Your task to perform on an android device: toggle data saver in the chrome app Image 0: 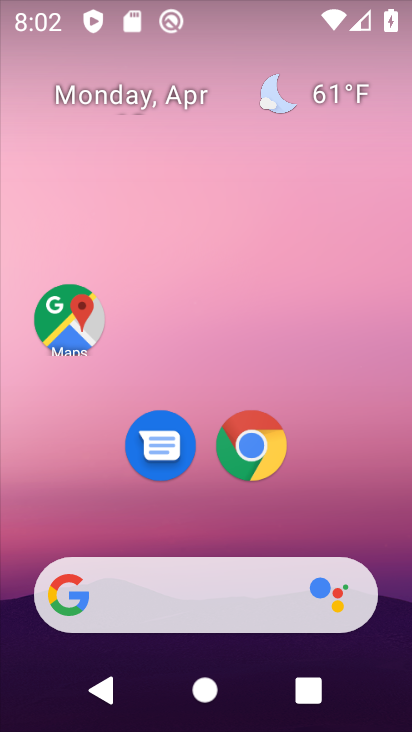
Step 0: click (267, 451)
Your task to perform on an android device: toggle data saver in the chrome app Image 1: 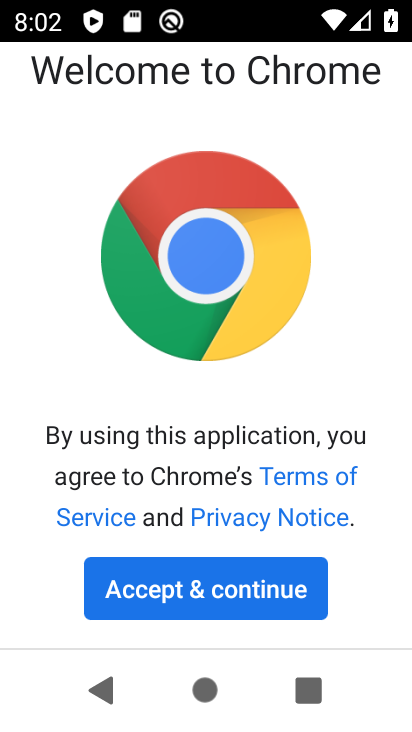
Step 1: click (282, 599)
Your task to perform on an android device: toggle data saver in the chrome app Image 2: 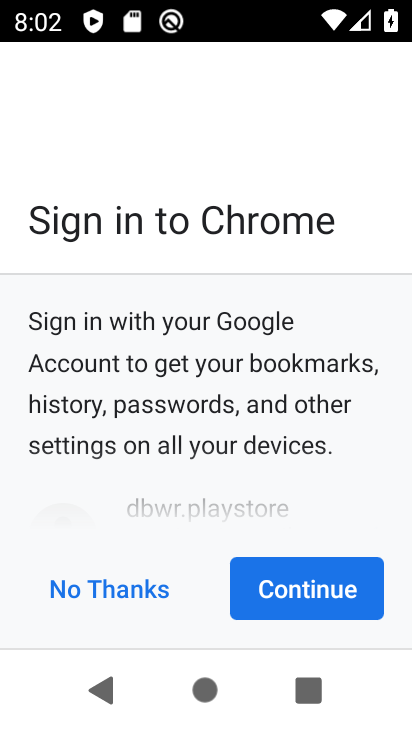
Step 2: click (291, 599)
Your task to perform on an android device: toggle data saver in the chrome app Image 3: 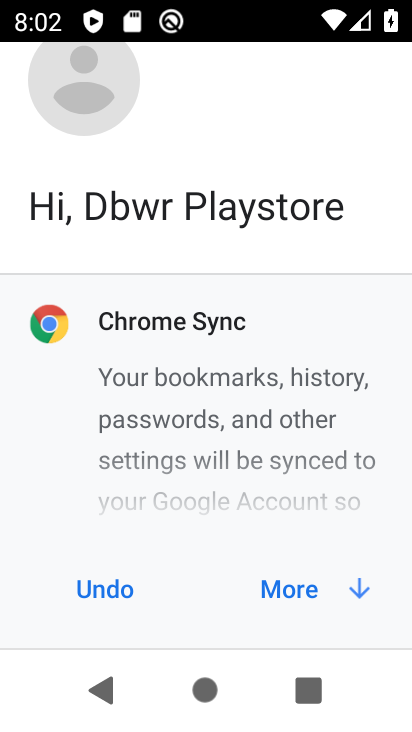
Step 3: click (292, 601)
Your task to perform on an android device: toggle data saver in the chrome app Image 4: 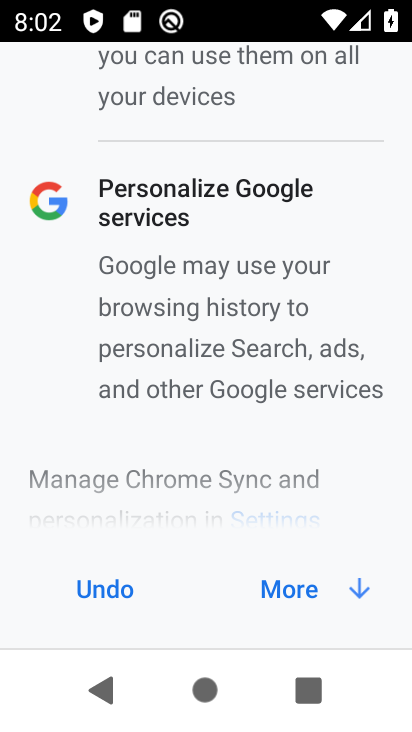
Step 4: click (291, 588)
Your task to perform on an android device: toggle data saver in the chrome app Image 5: 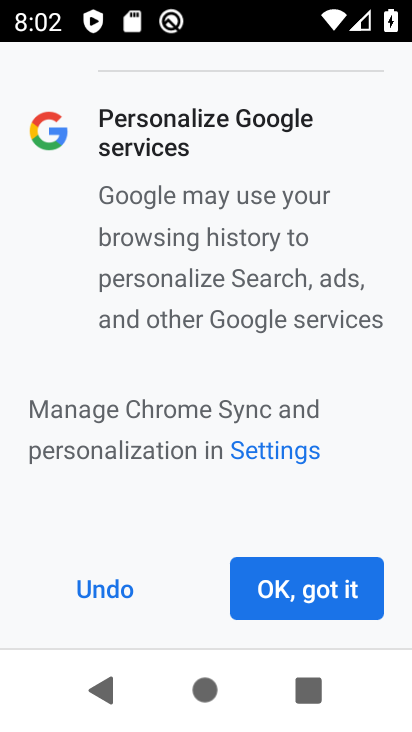
Step 5: click (292, 592)
Your task to perform on an android device: toggle data saver in the chrome app Image 6: 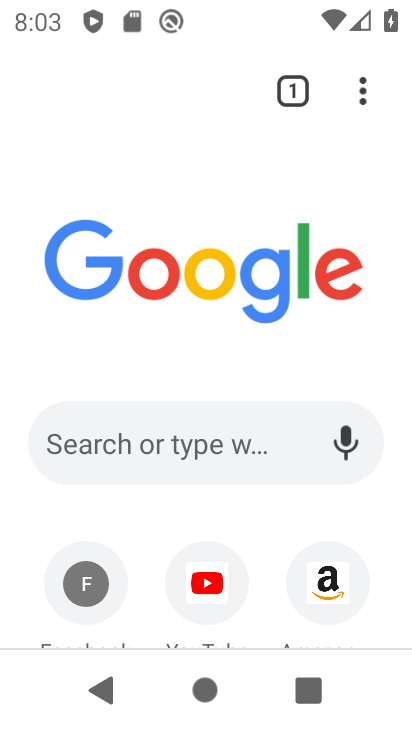
Step 6: click (364, 100)
Your task to perform on an android device: toggle data saver in the chrome app Image 7: 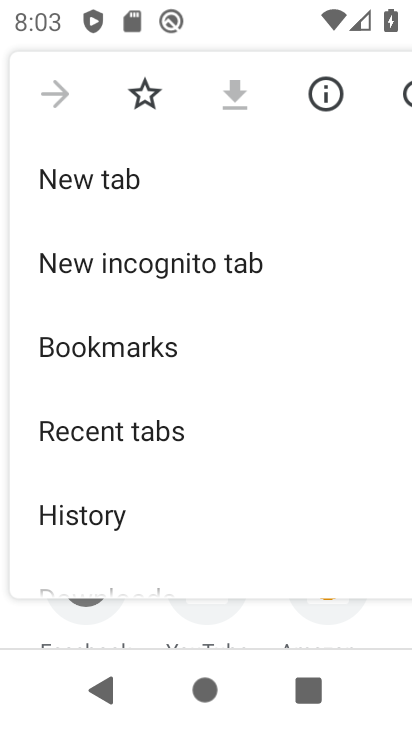
Step 7: drag from (168, 506) to (233, 205)
Your task to perform on an android device: toggle data saver in the chrome app Image 8: 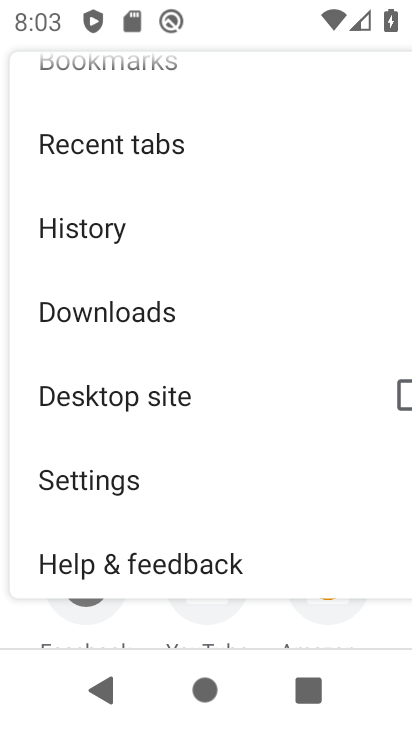
Step 8: click (111, 481)
Your task to perform on an android device: toggle data saver in the chrome app Image 9: 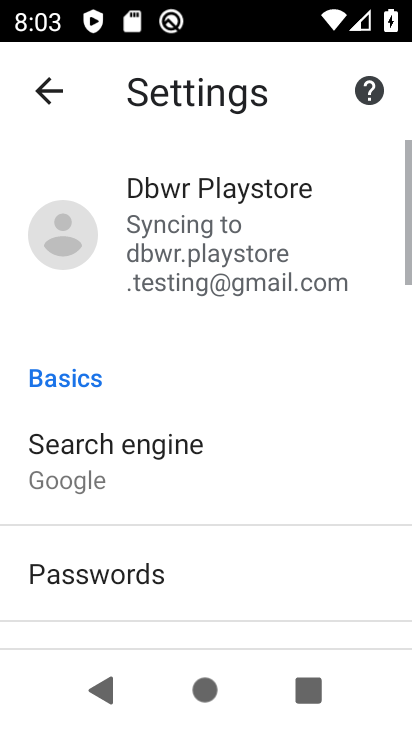
Step 9: drag from (313, 491) to (348, 165)
Your task to perform on an android device: toggle data saver in the chrome app Image 10: 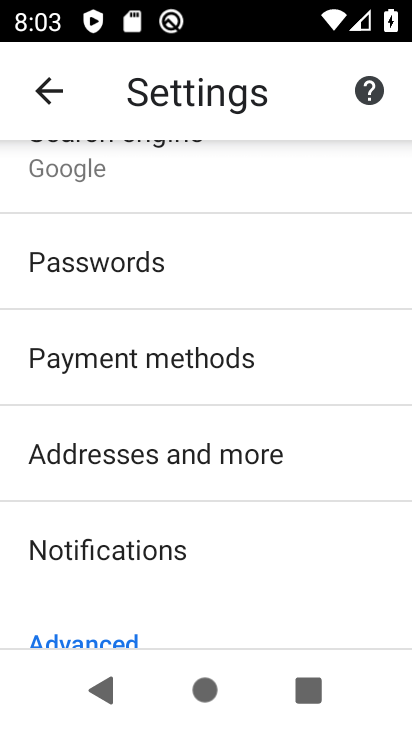
Step 10: drag from (297, 583) to (314, 194)
Your task to perform on an android device: toggle data saver in the chrome app Image 11: 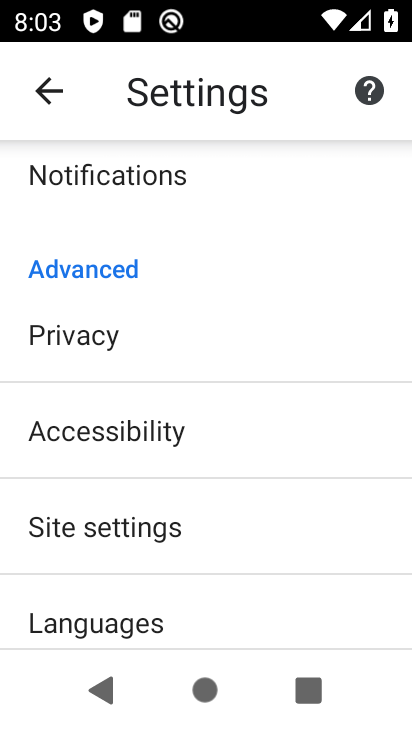
Step 11: drag from (291, 542) to (291, 263)
Your task to perform on an android device: toggle data saver in the chrome app Image 12: 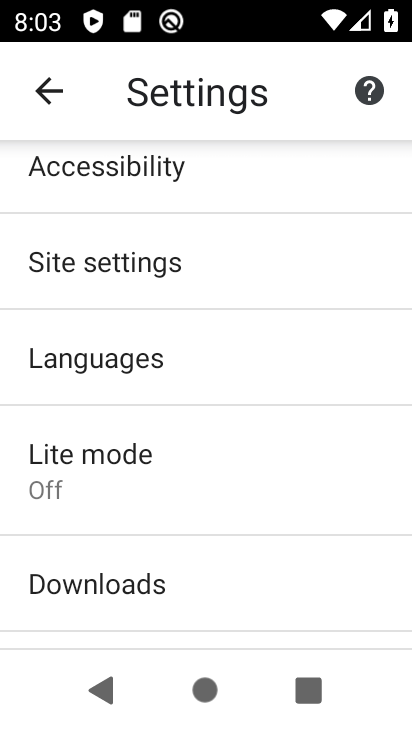
Step 12: click (123, 486)
Your task to perform on an android device: toggle data saver in the chrome app Image 13: 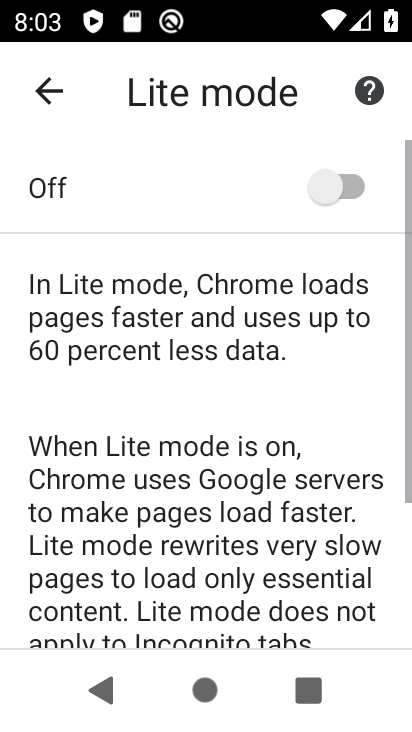
Step 13: click (344, 190)
Your task to perform on an android device: toggle data saver in the chrome app Image 14: 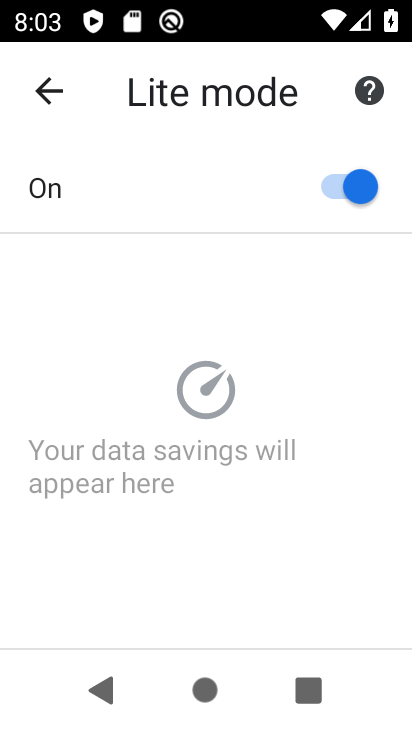
Step 14: task complete